Your task to perform on an android device: Open Google Image 0: 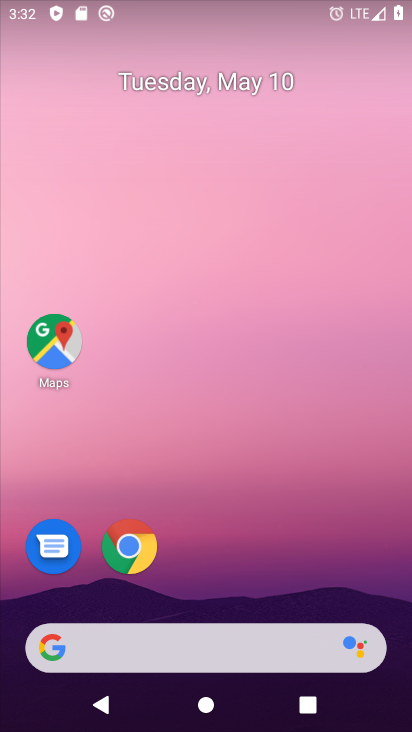
Step 0: click (200, 597)
Your task to perform on an android device: Open Google Image 1: 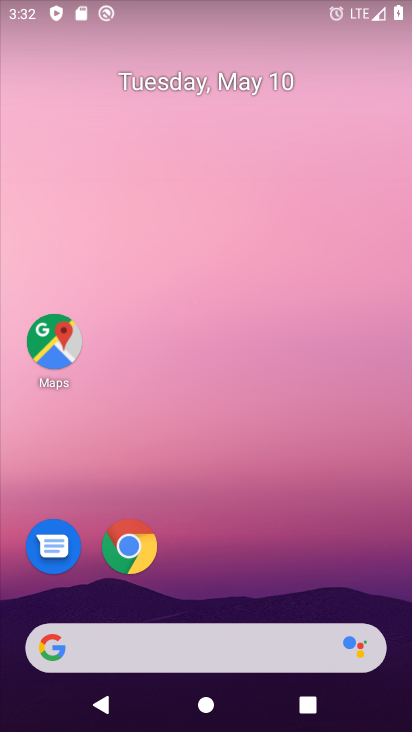
Step 1: click (200, 635)
Your task to perform on an android device: Open Google Image 2: 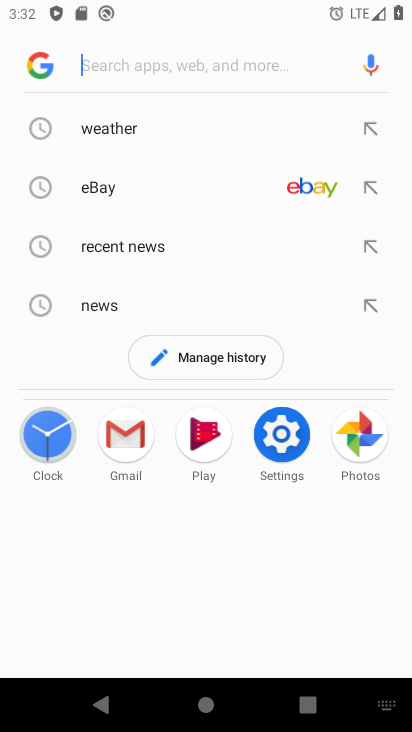
Step 2: click (28, 70)
Your task to perform on an android device: Open Google Image 3: 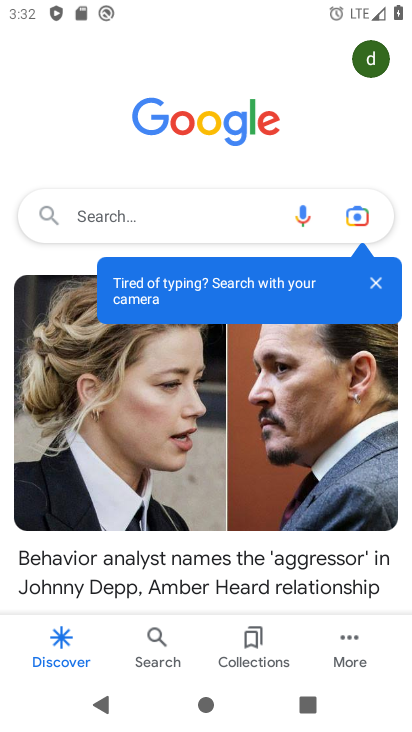
Step 3: task complete